Your task to perform on an android device: turn off translation in the chrome app Image 0: 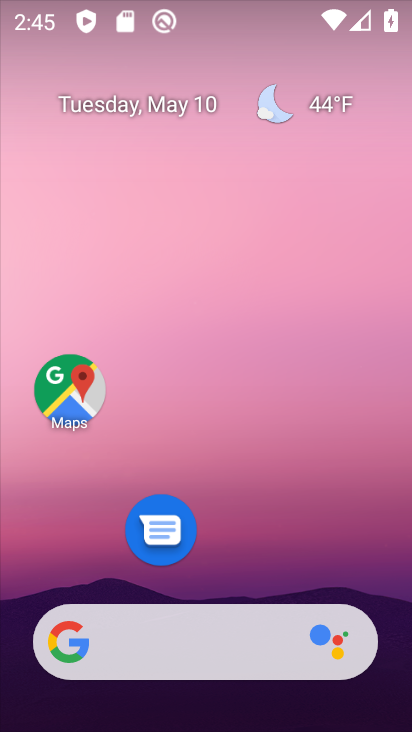
Step 0: drag from (254, 539) to (259, 80)
Your task to perform on an android device: turn off translation in the chrome app Image 1: 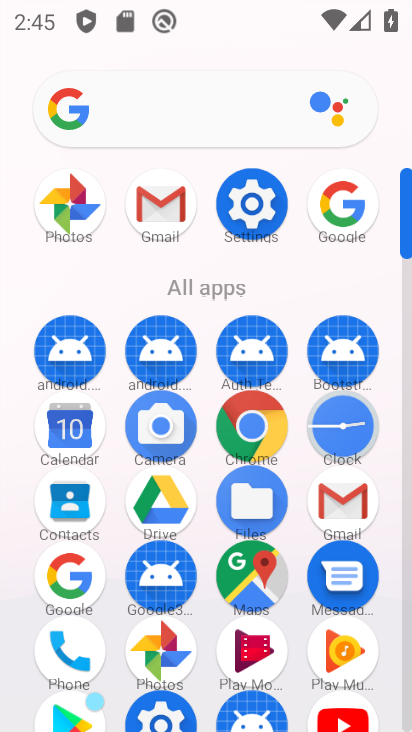
Step 1: drag from (193, 628) to (210, 351)
Your task to perform on an android device: turn off translation in the chrome app Image 2: 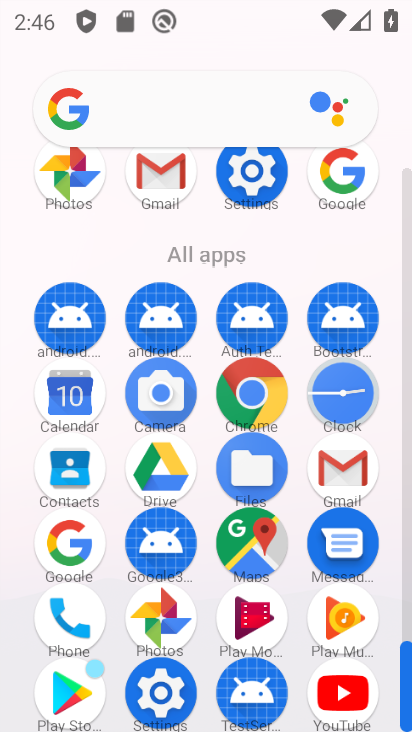
Step 2: click (248, 391)
Your task to perform on an android device: turn off translation in the chrome app Image 3: 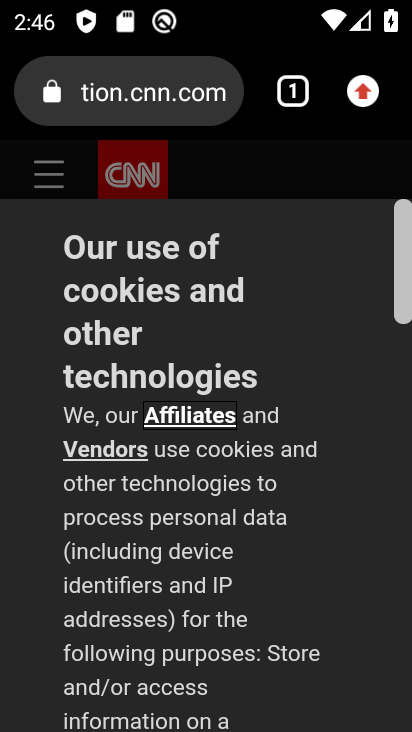
Step 3: press back button
Your task to perform on an android device: turn off translation in the chrome app Image 4: 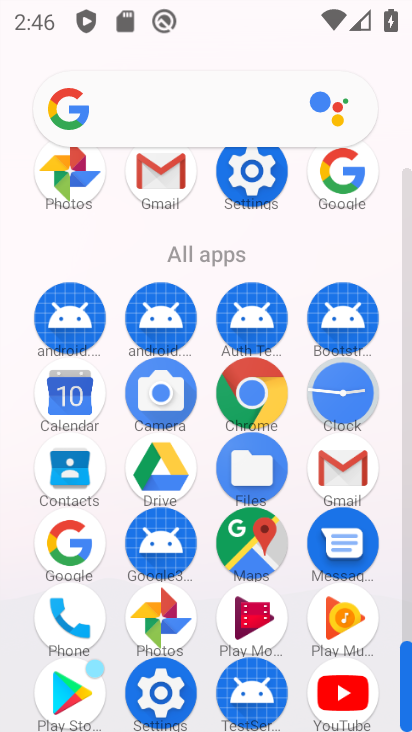
Step 4: click (258, 393)
Your task to perform on an android device: turn off translation in the chrome app Image 5: 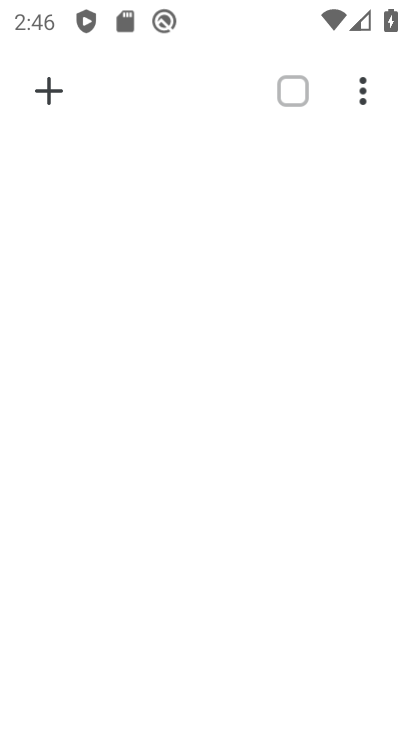
Step 5: click (358, 91)
Your task to perform on an android device: turn off translation in the chrome app Image 6: 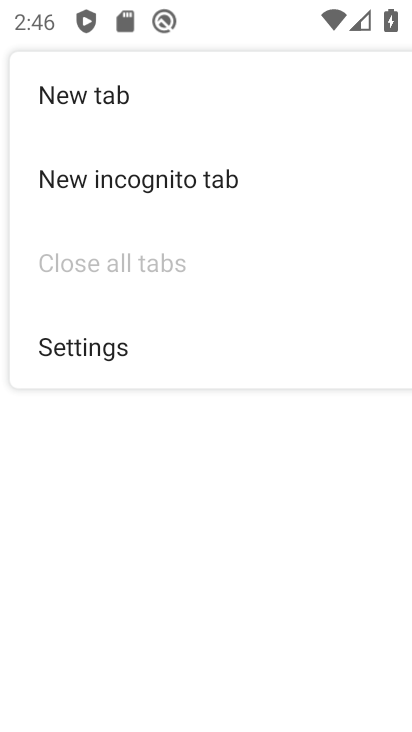
Step 6: click (146, 348)
Your task to perform on an android device: turn off translation in the chrome app Image 7: 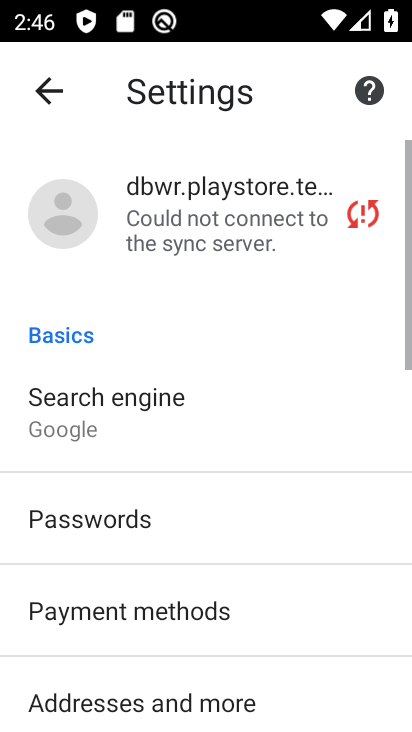
Step 7: drag from (277, 543) to (305, 23)
Your task to perform on an android device: turn off translation in the chrome app Image 8: 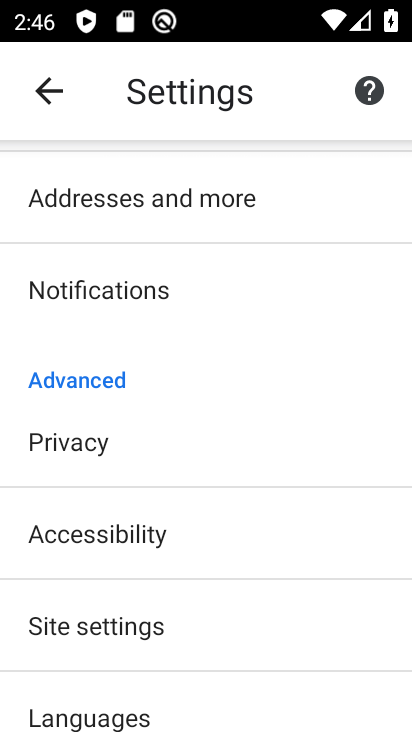
Step 8: click (148, 707)
Your task to perform on an android device: turn off translation in the chrome app Image 9: 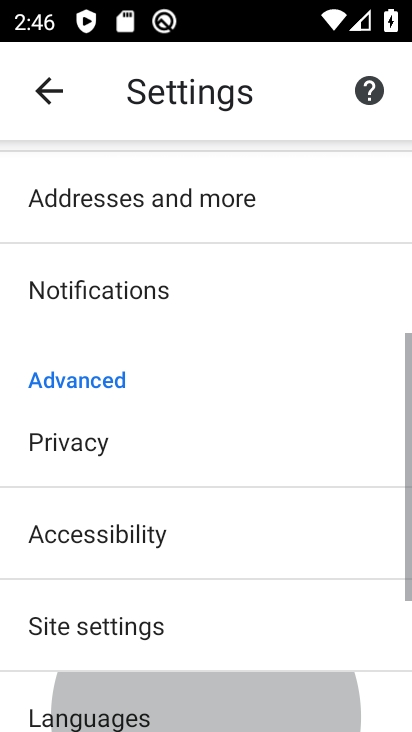
Step 9: click (148, 707)
Your task to perform on an android device: turn off translation in the chrome app Image 10: 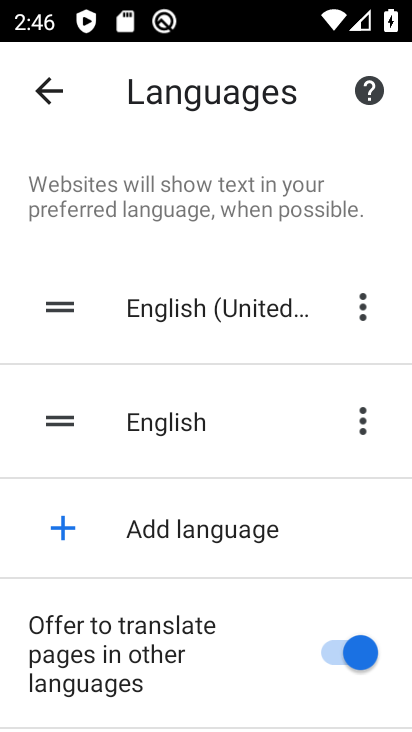
Step 10: click (227, 690)
Your task to perform on an android device: turn off translation in the chrome app Image 11: 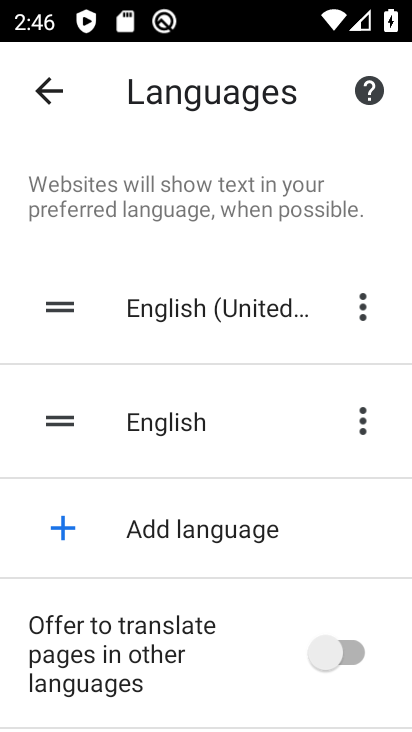
Step 11: press home button
Your task to perform on an android device: turn off translation in the chrome app Image 12: 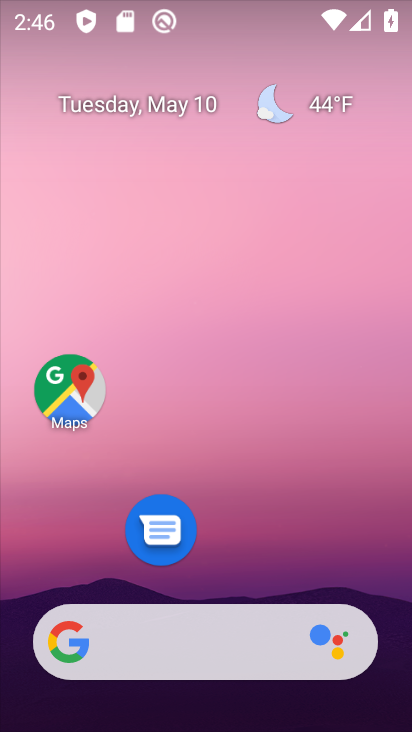
Step 12: drag from (248, 538) to (248, 55)
Your task to perform on an android device: turn off translation in the chrome app Image 13: 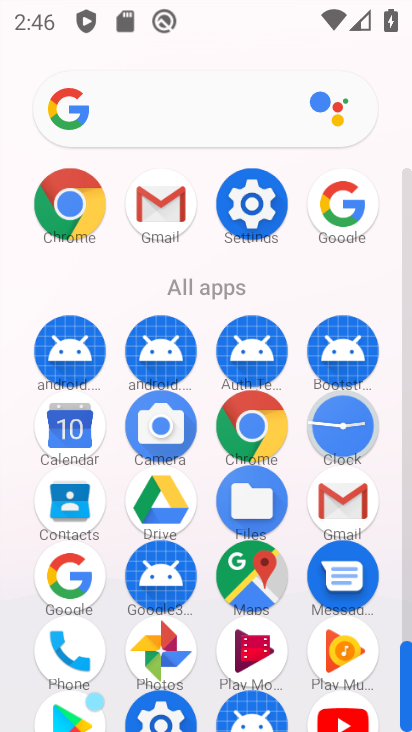
Step 13: click (255, 424)
Your task to perform on an android device: turn off translation in the chrome app Image 14: 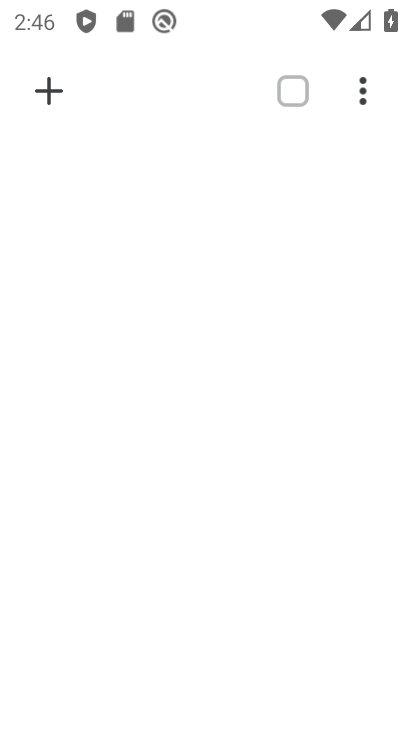
Step 14: click (47, 83)
Your task to perform on an android device: turn off translation in the chrome app Image 15: 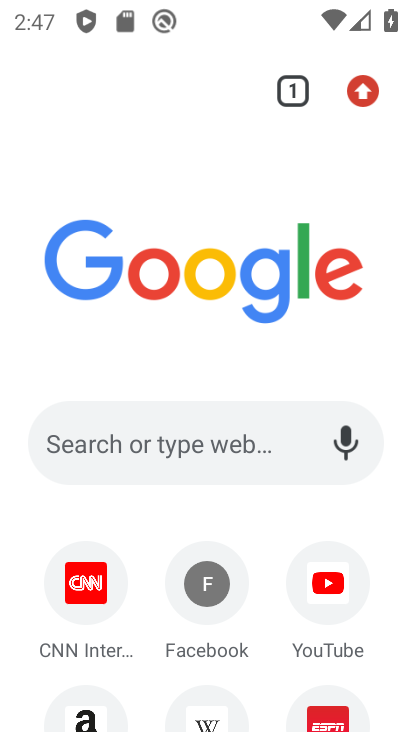
Step 15: click (359, 89)
Your task to perform on an android device: turn off translation in the chrome app Image 16: 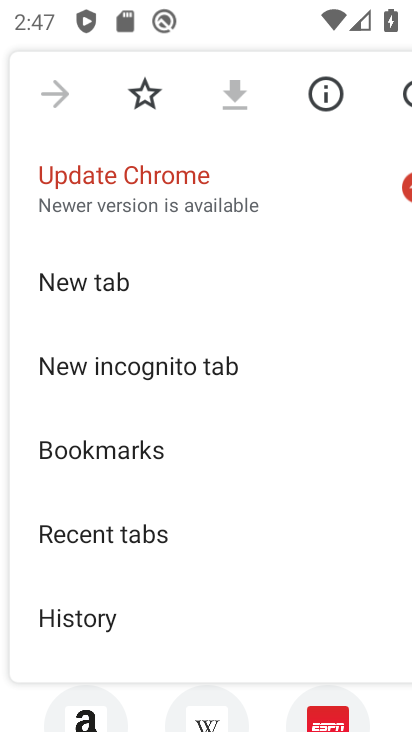
Step 16: drag from (232, 454) to (258, 31)
Your task to perform on an android device: turn off translation in the chrome app Image 17: 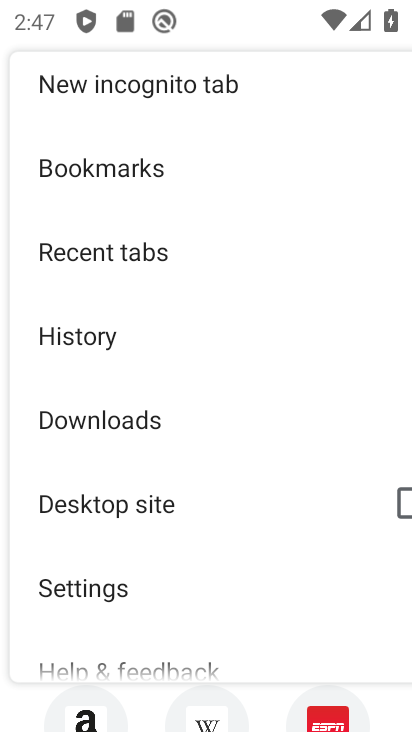
Step 17: click (89, 567)
Your task to perform on an android device: turn off translation in the chrome app Image 18: 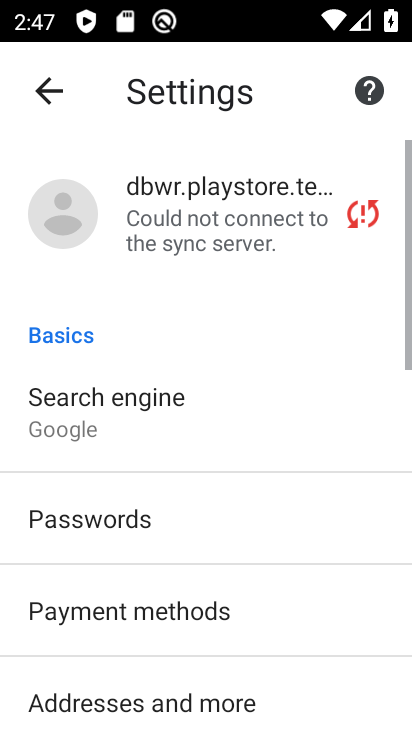
Step 18: drag from (264, 612) to (256, 99)
Your task to perform on an android device: turn off translation in the chrome app Image 19: 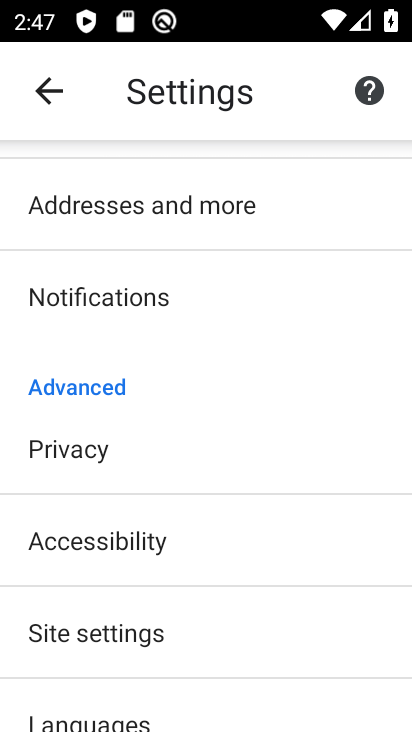
Step 19: drag from (246, 600) to (195, 318)
Your task to perform on an android device: turn off translation in the chrome app Image 20: 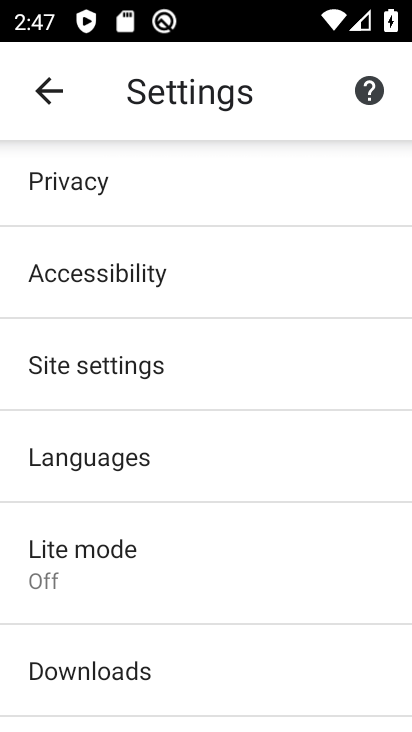
Step 20: click (117, 469)
Your task to perform on an android device: turn off translation in the chrome app Image 21: 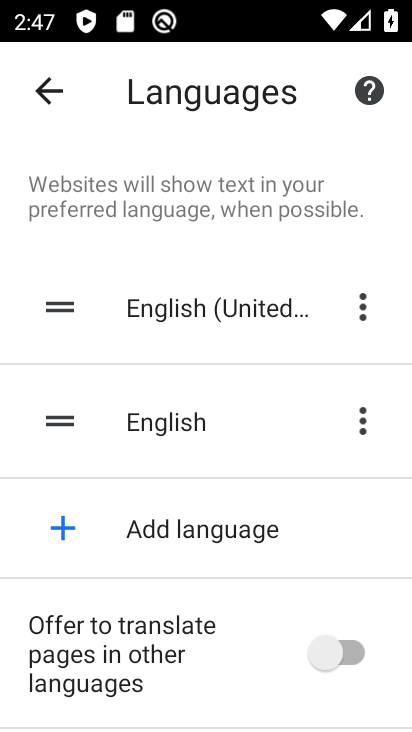
Step 21: task complete